Your task to perform on an android device: Go to location settings Image 0: 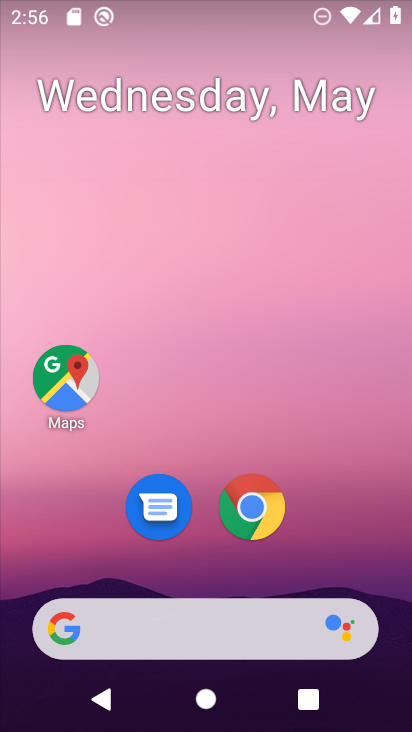
Step 0: drag from (218, 572) to (228, 41)
Your task to perform on an android device: Go to location settings Image 1: 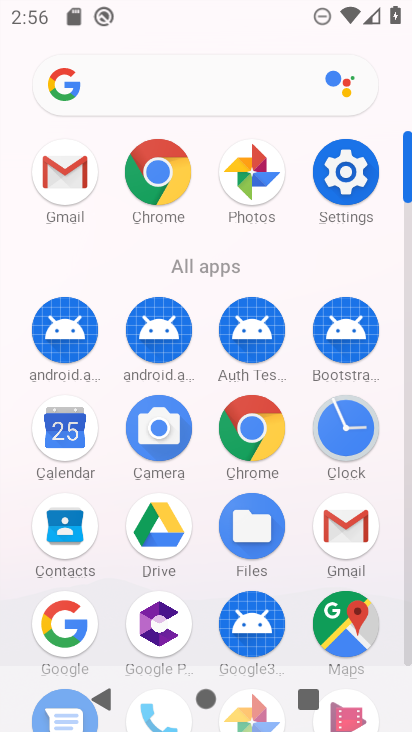
Step 1: click (347, 184)
Your task to perform on an android device: Go to location settings Image 2: 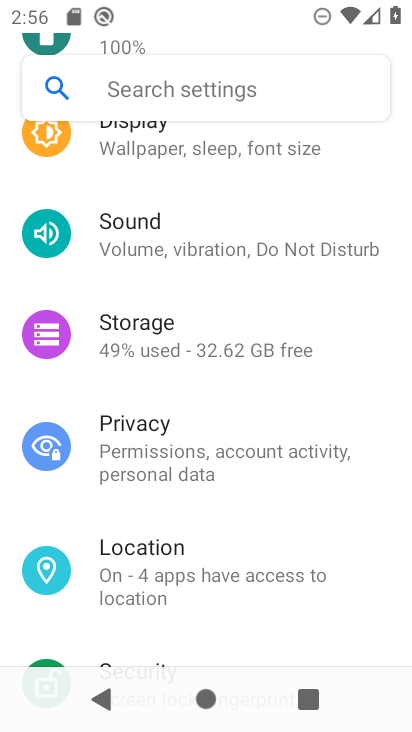
Step 2: click (179, 569)
Your task to perform on an android device: Go to location settings Image 3: 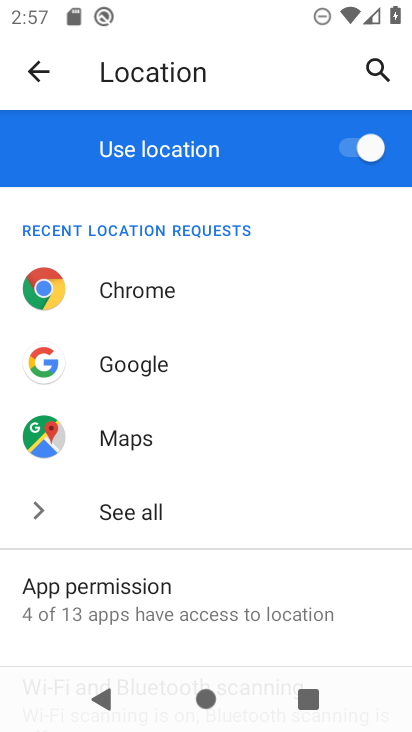
Step 3: task complete